Your task to perform on an android device: allow notifications from all sites in the chrome app Image 0: 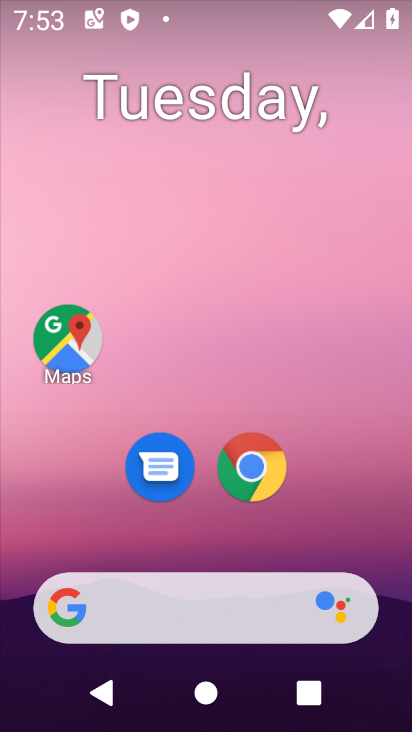
Step 0: click (258, 469)
Your task to perform on an android device: allow notifications from all sites in the chrome app Image 1: 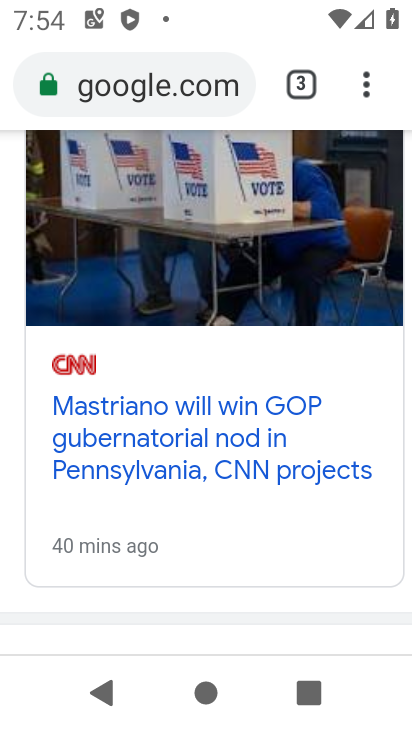
Step 1: click (383, 92)
Your task to perform on an android device: allow notifications from all sites in the chrome app Image 2: 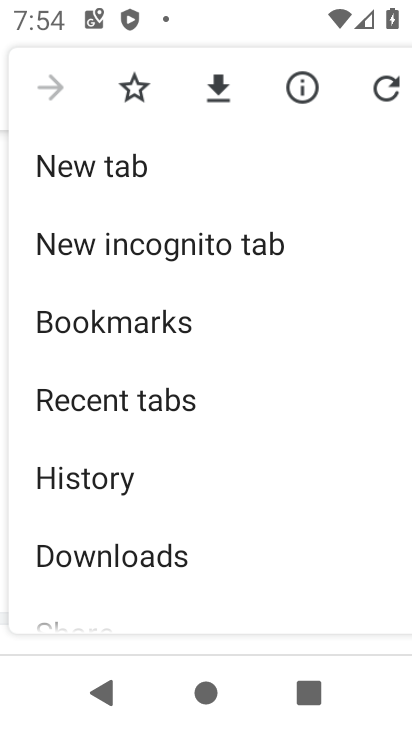
Step 2: drag from (354, 576) to (360, 168)
Your task to perform on an android device: allow notifications from all sites in the chrome app Image 3: 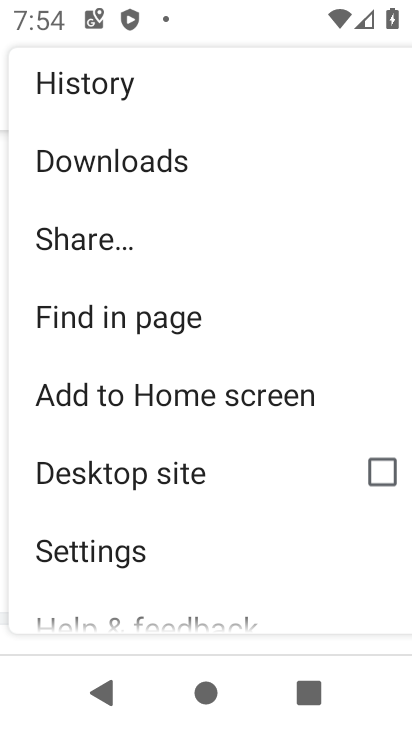
Step 3: click (261, 556)
Your task to perform on an android device: allow notifications from all sites in the chrome app Image 4: 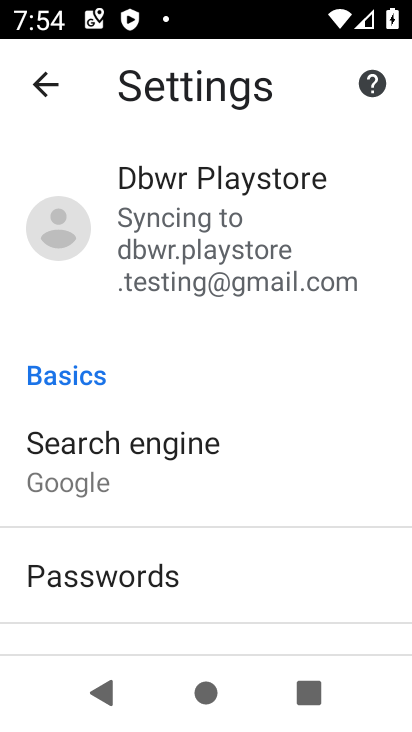
Step 4: drag from (291, 580) to (235, 124)
Your task to perform on an android device: allow notifications from all sites in the chrome app Image 5: 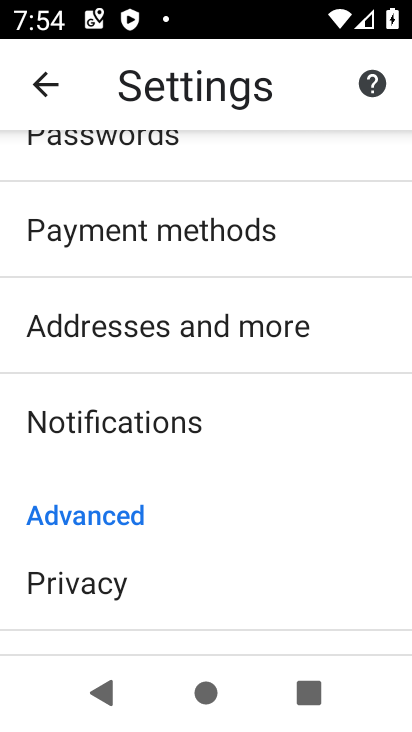
Step 5: drag from (314, 537) to (295, 163)
Your task to perform on an android device: allow notifications from all sites in the chrome app Image 6: 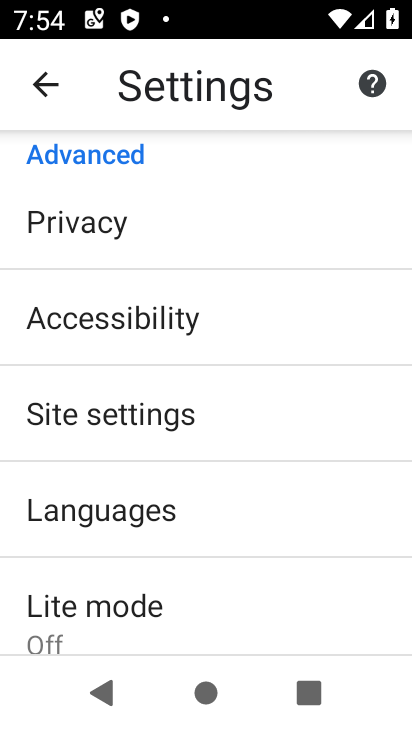
Step 6: click (287, 416)
Your task to perform on an android device: allow notifications from all sites in the chrome app Image 7: 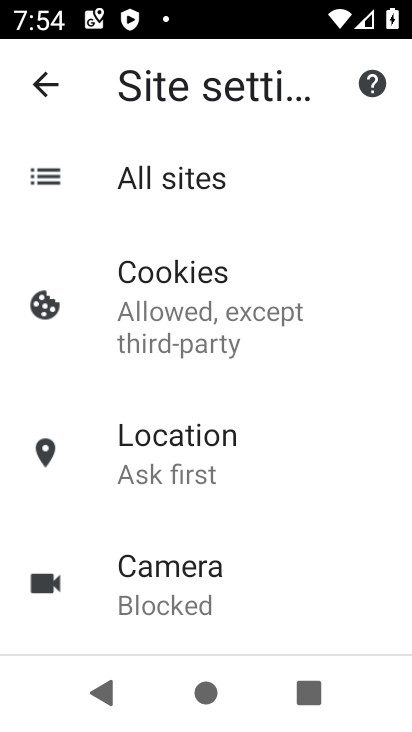
Step 7: drag from (319, 592) to (287, 133)
Your task to perform on an android device: allow notifications from all sites in the chrome app Image 8: 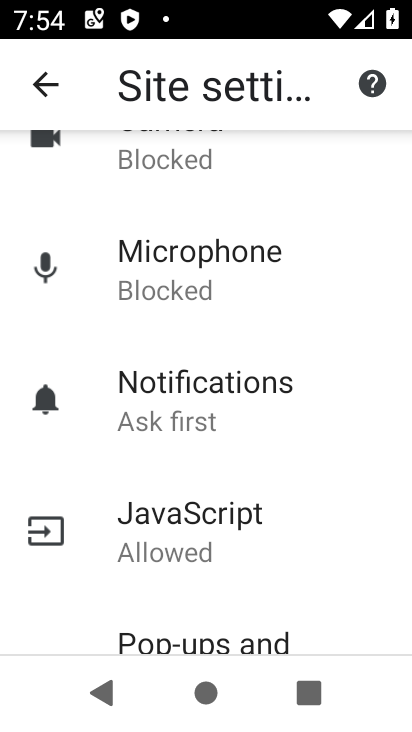
Step 8: click (287, 388)
Your task to perform on an android device: allow notifications from all sites in the chrome app Image 9: 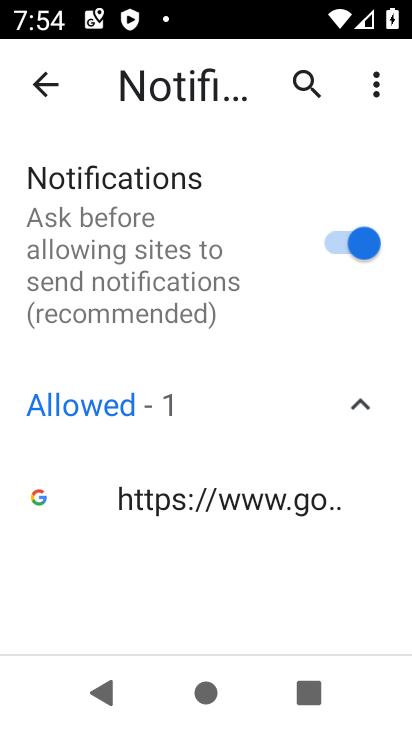
Step 9: task complete